Your task to perform on an android device: turn notification dots off Image 0: 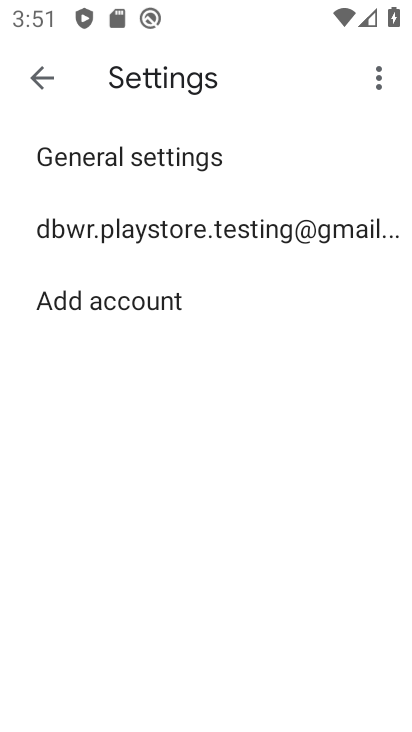
Step 0: press home button
Your task to perform on an android device: turn notification dots off Image 1: 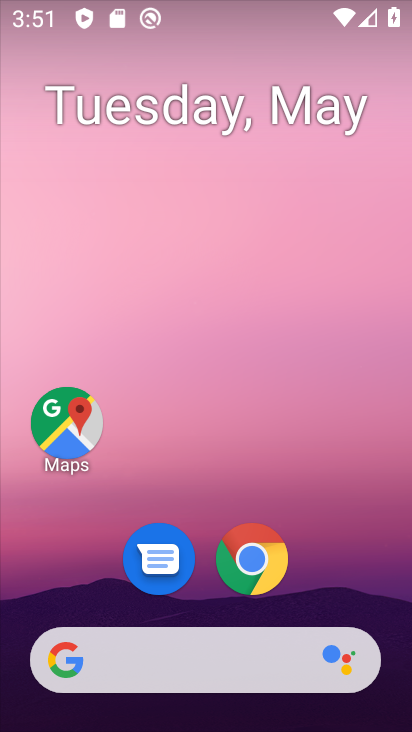
Step 1: drag from (389, 592) to (268, 76)
Your task to perform on an android device: turn notification dots off Image 2: 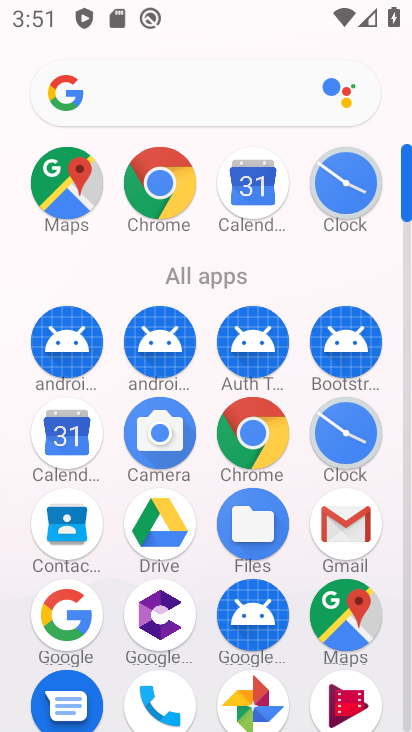
Step 2: click (411, 726)
Your task to perform on an android device: turn notification dots off Image 3: 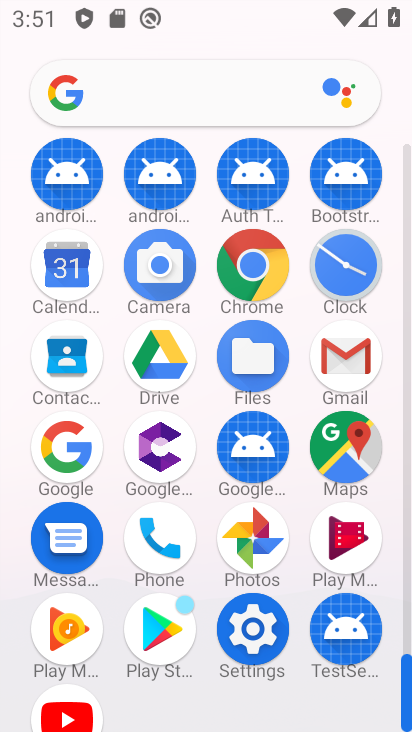
Step 3: click (267, 641)
Your task to perform on an android device: turn notification dots off Image 4: 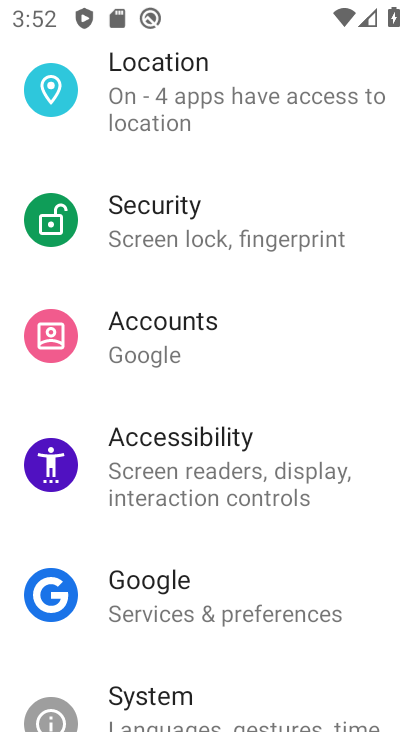
Step 4: drag from (230, 152) to (232, 566)
Your task to perform on an android device: turn notification dots off Image 5: 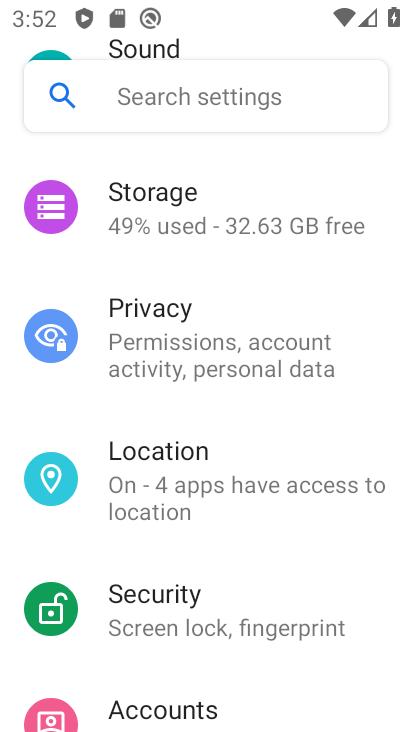
Step 5: drag from (157, 152) to (162, 664)
Your task to perform on an android device: turn notification dots off Image 6: 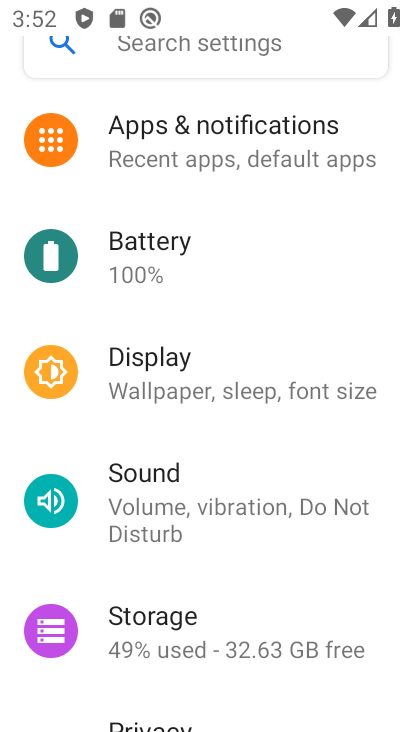
Step 6: click (159, 154)
Your task to perform on an android device: turn notification dots off Image 7: 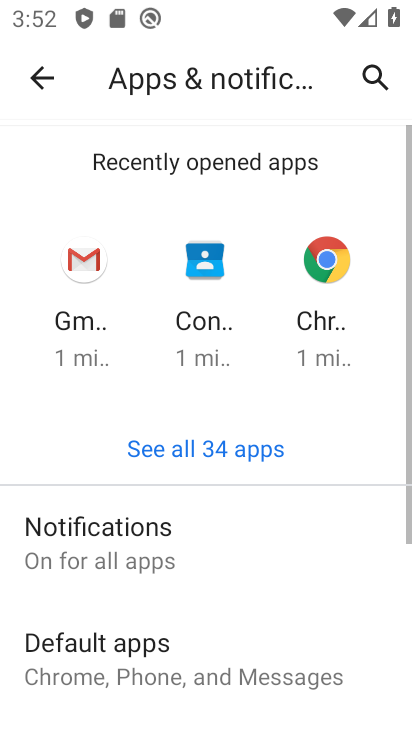
Step 7: click (165, 557)
Your task to perform on an android device: turn notification dots off Image 8: 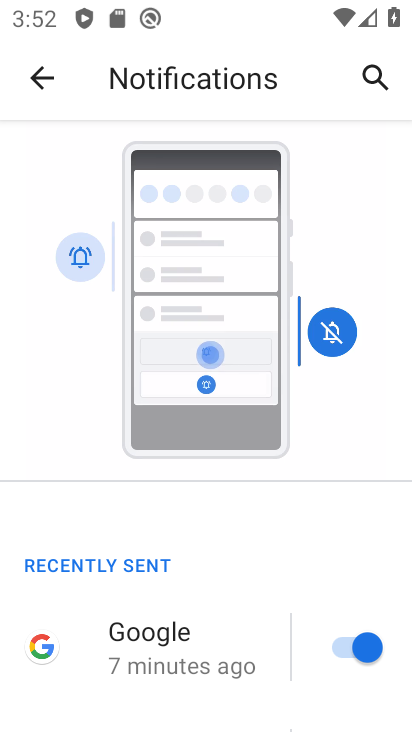
Step 8: drag from (210, 663) to (231, 151)
Your task to perform on an android device: turn notification dots off Image 9: 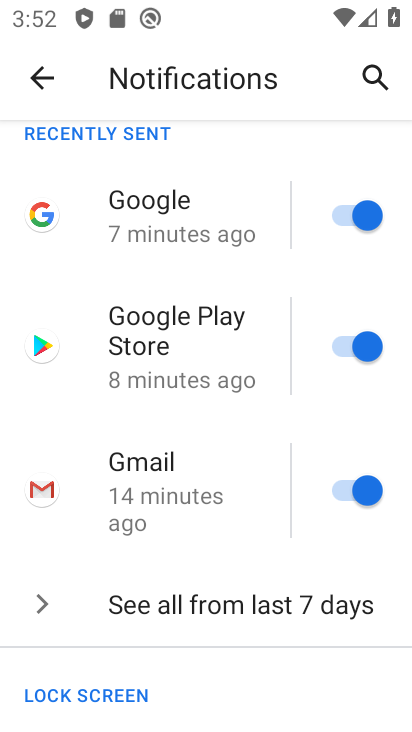
Step 9: drag from (216, 633) to (230, 138)
Your task to perform on an android device: turn notification dots off Image 10: 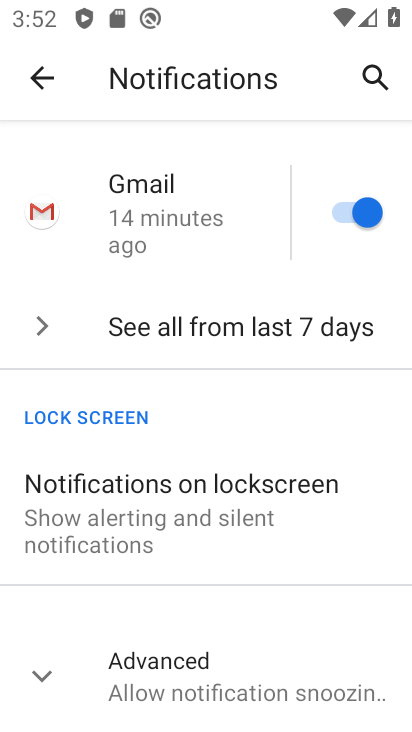
Step 10: click (236, 673)
Your task to perform on an android device: turn notification dots off Image 11: 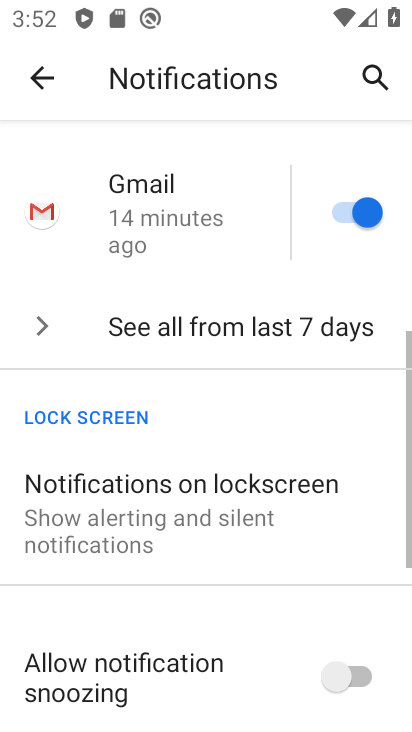
Step 11: drag from (236, 673) to (211, 189)
Your task to perform on an android device: turn notification dots off Image 12: 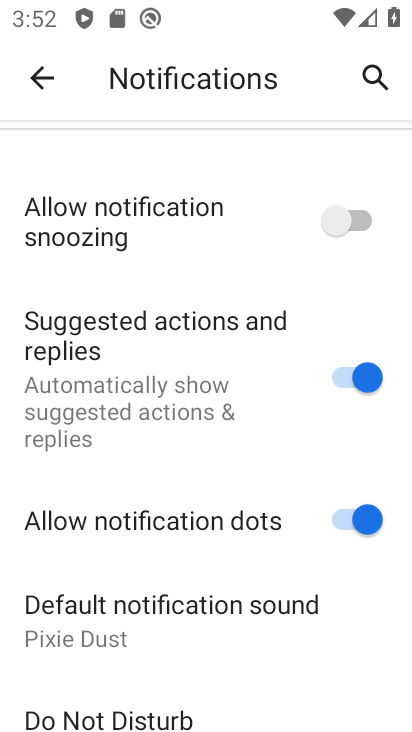
Step 12: click (357, 530)
Your task to perform on an android device: turn notification dots off Image 13: 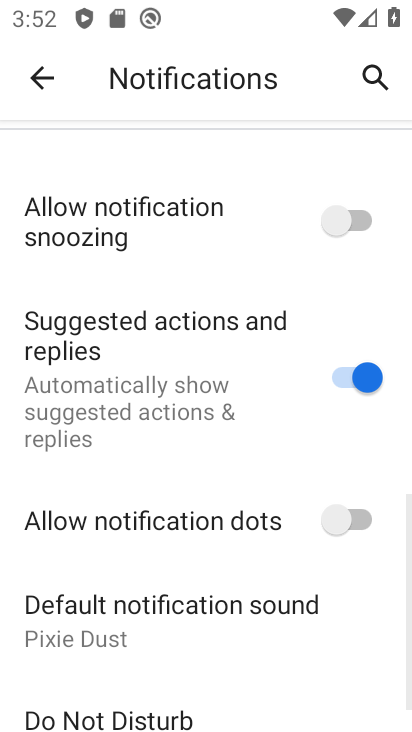
Step 13: task complete